Your task to perform on an android device: turn off location history Image 0: 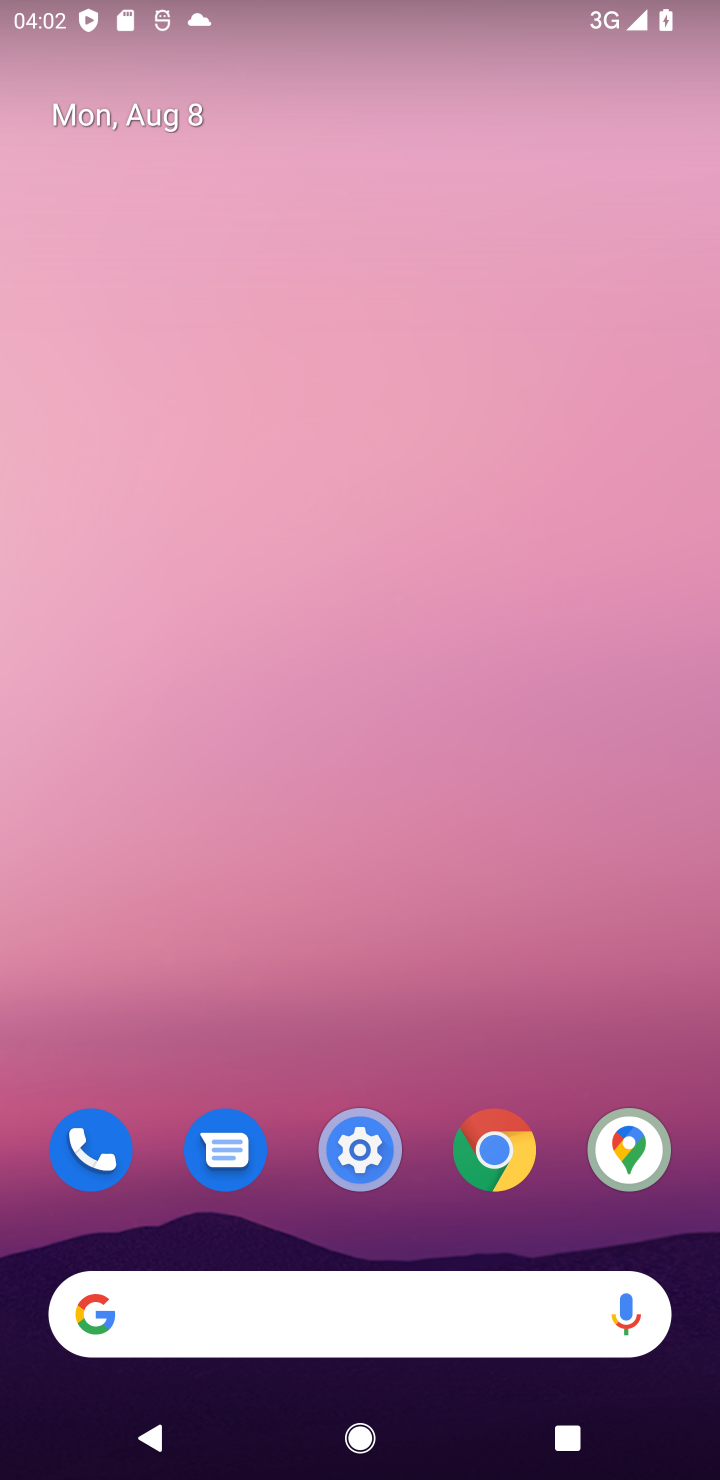
Step 0: click (344, 1147)
Your task to perform on an android device: turn off location history Image 1: 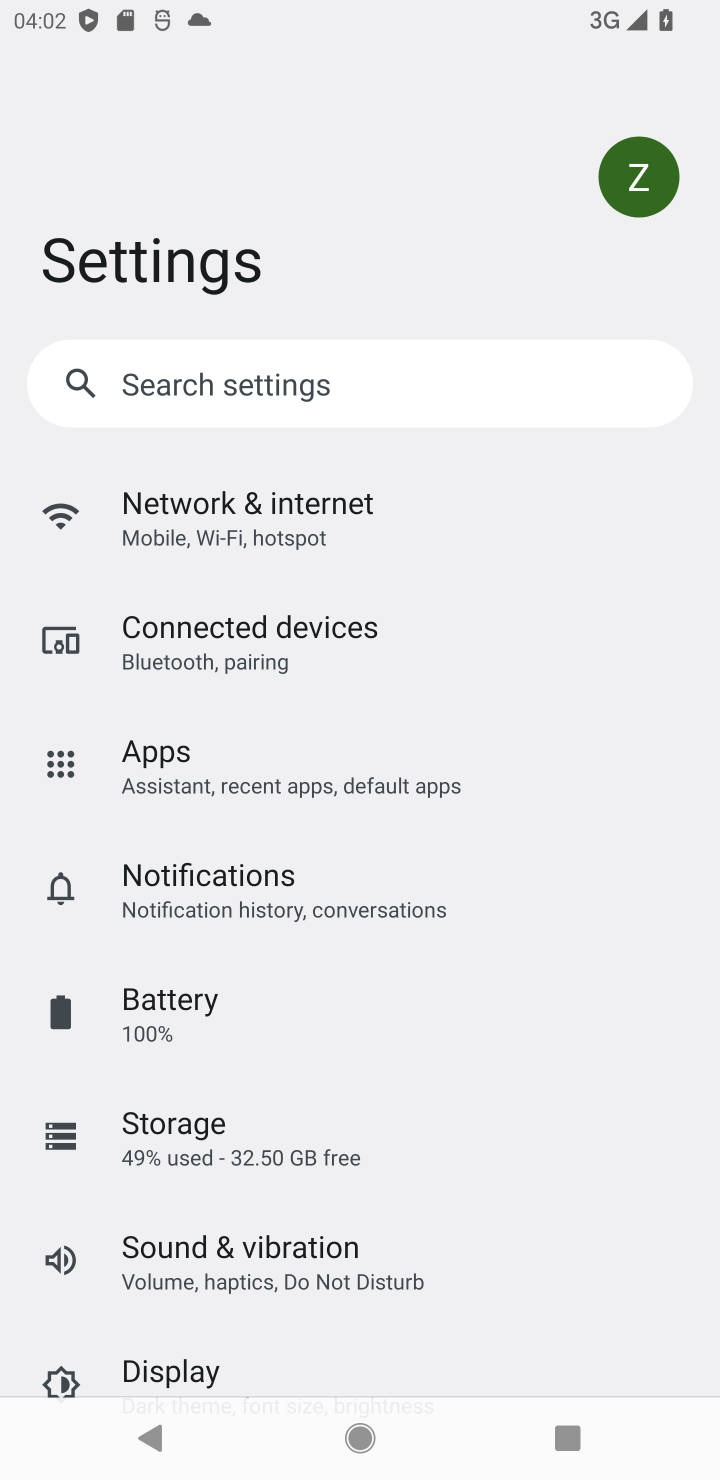
Step 1: drag from (527, 1334) to (489, 806)
Your task to perform on an android device: turn off location history Image 2: 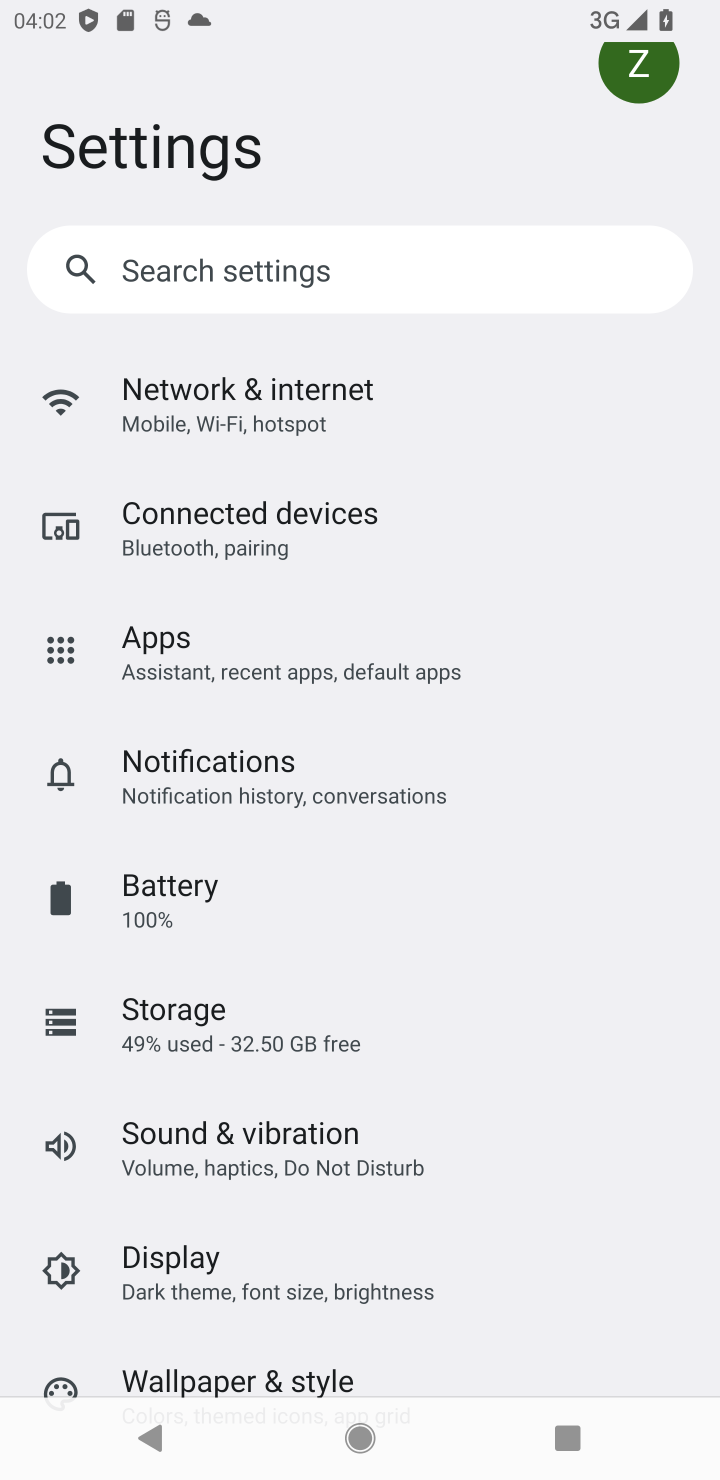
Step 2: drag from (552, 1299) to (545, 660)
Your task to perform on an android device: turn off location history Image 3: 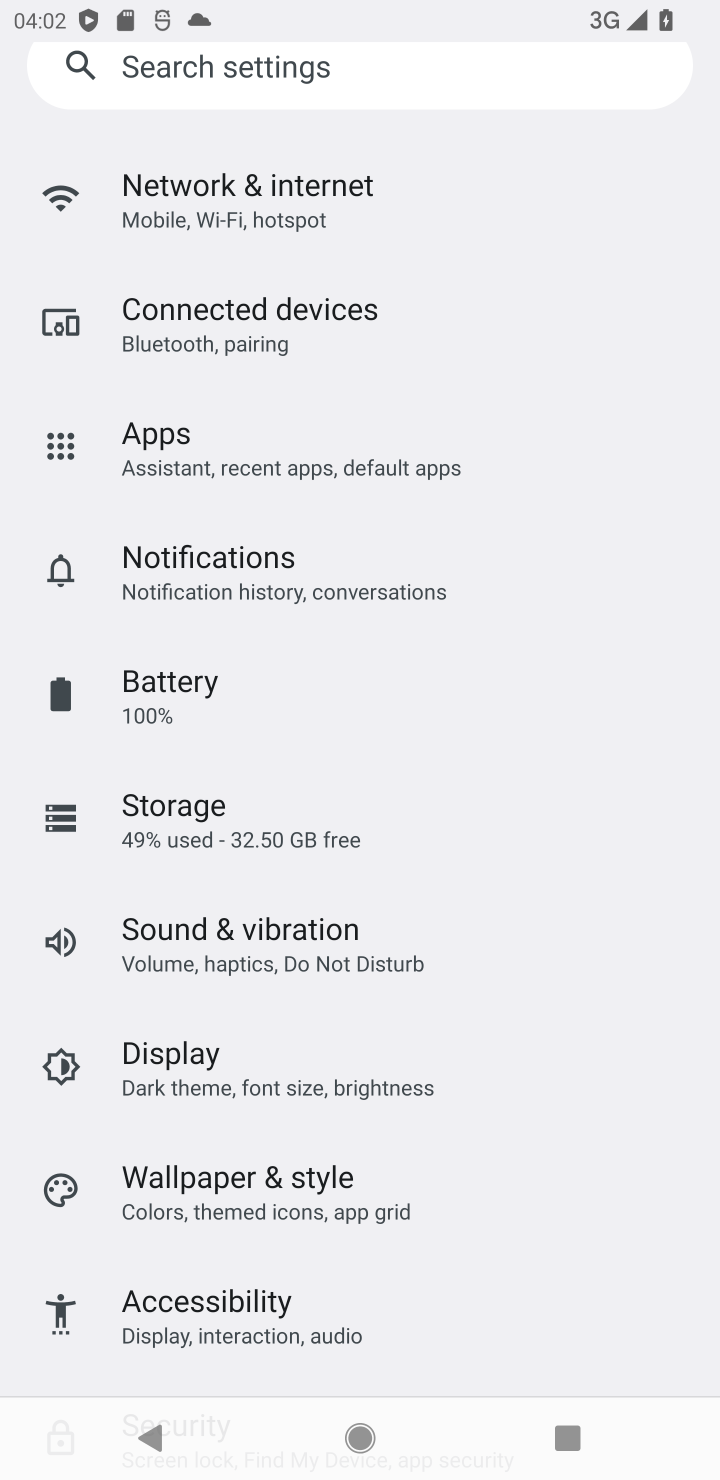
Step 3: drag from (638, 1328) to (648, 750)
Your task to perform on an android device: turn off location history Image 4: 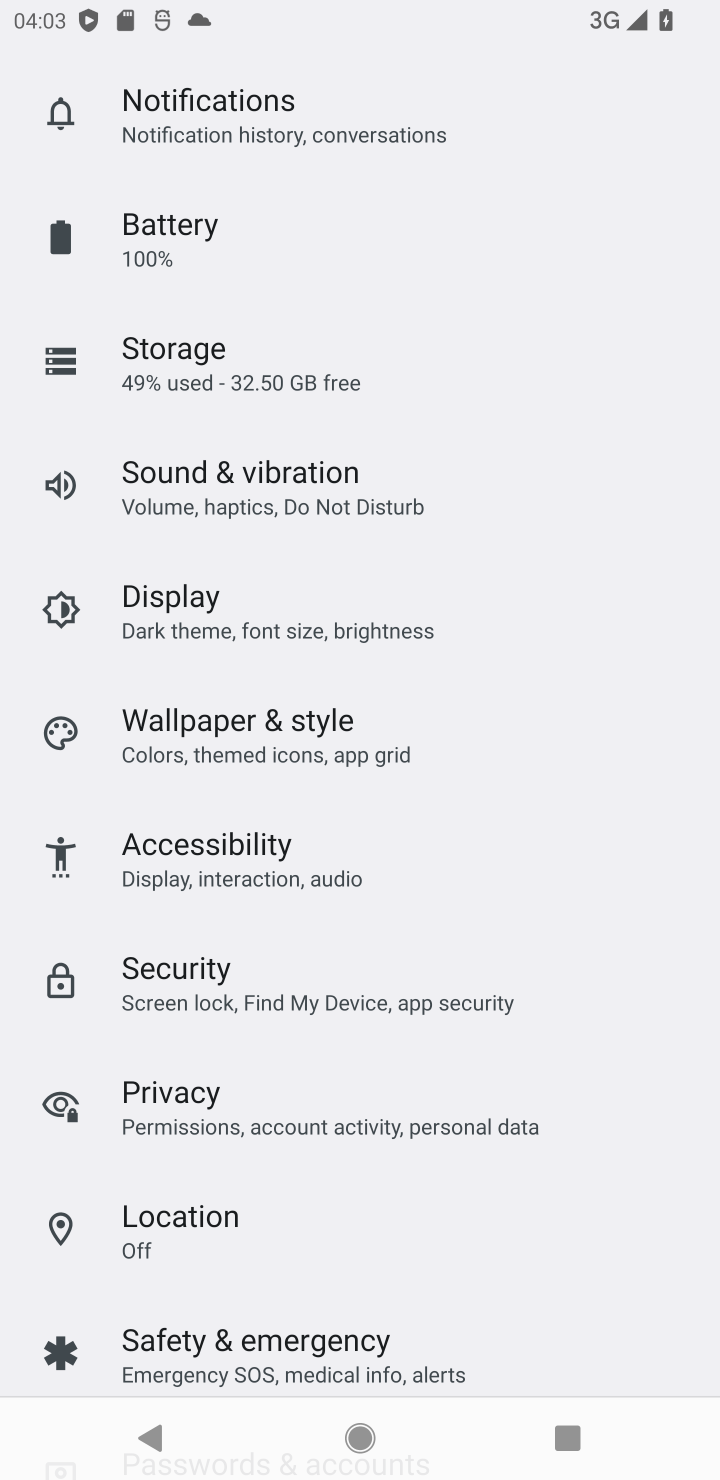
Step 4: click (167, 1208)
Your task to perform on an android device: turn off location history Image 5: 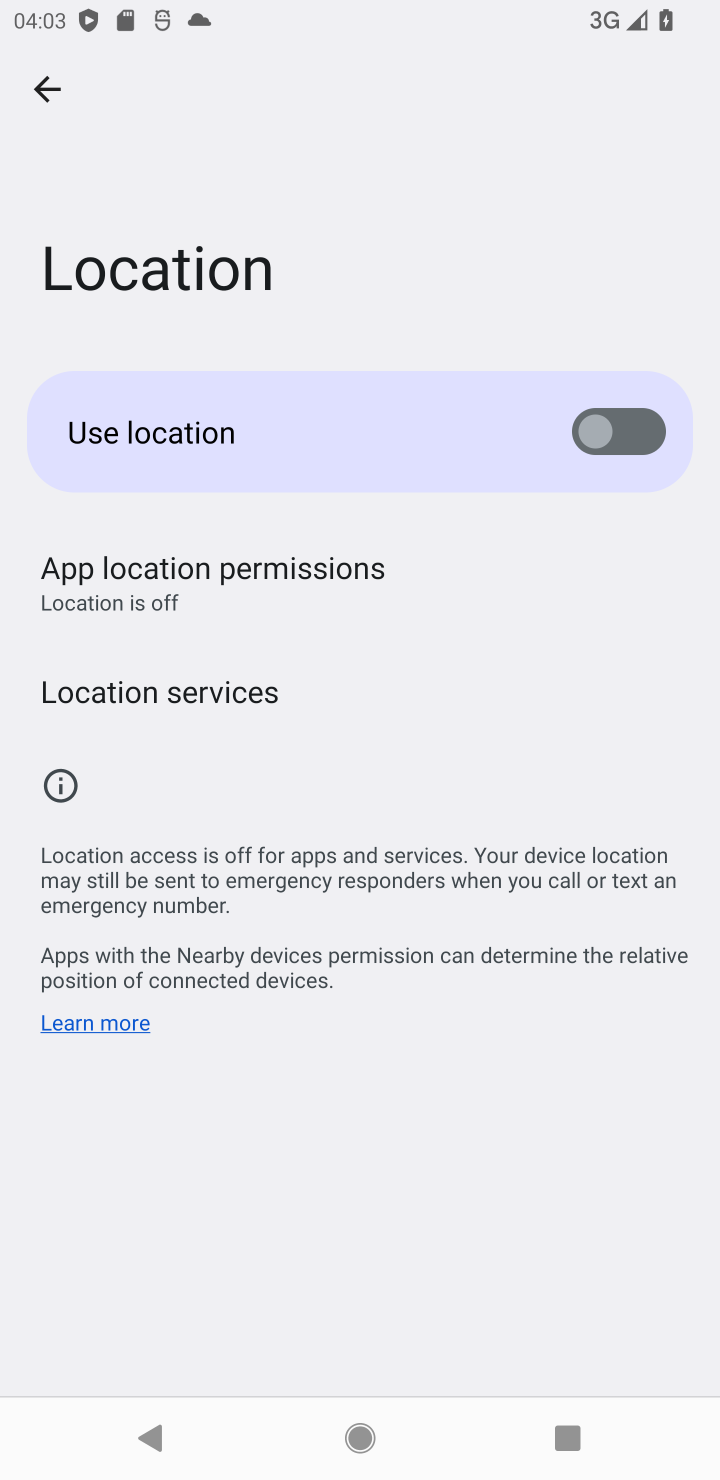
Step 5: click (228, 716)
Your task to perform on an android device: turn off location history Image 6: 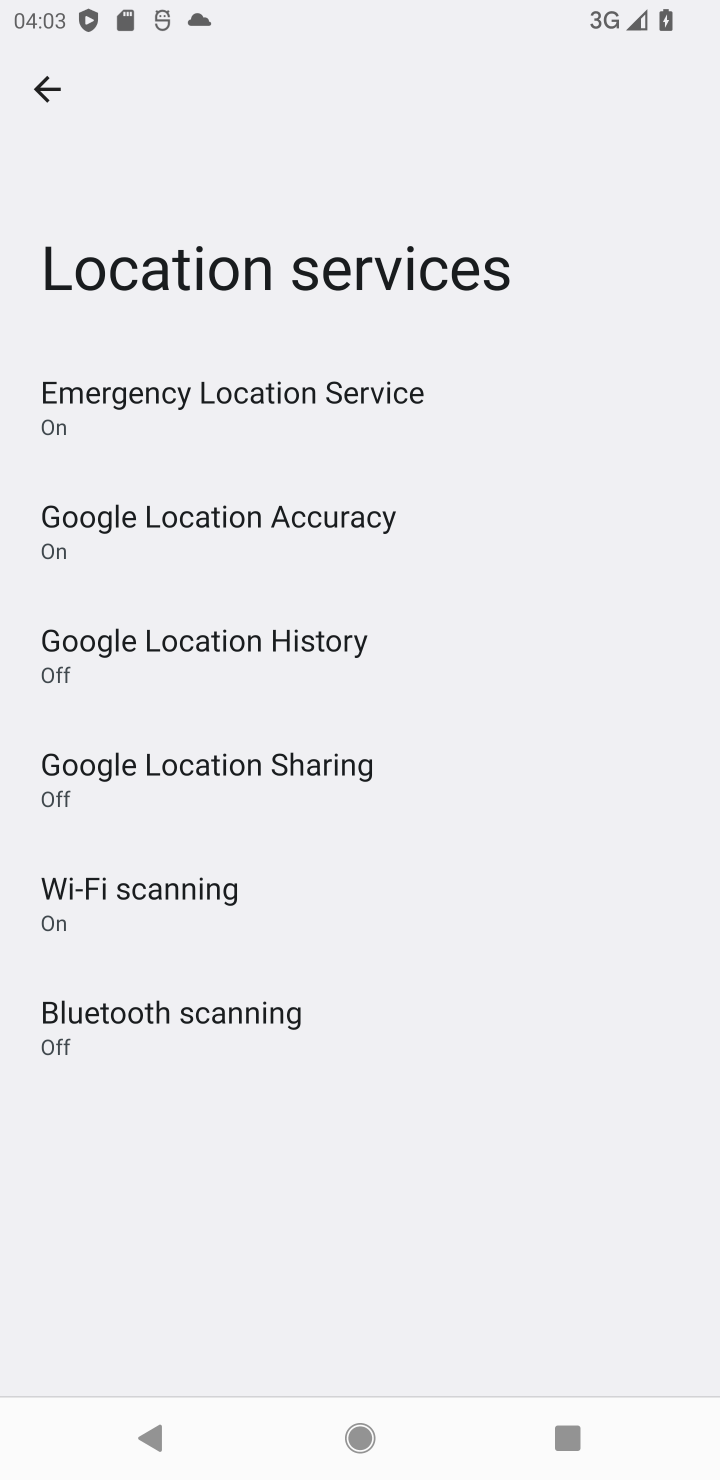
Step 6: task complete